Your task to perform on an android device: delete a single message in the gmail app Image 0: 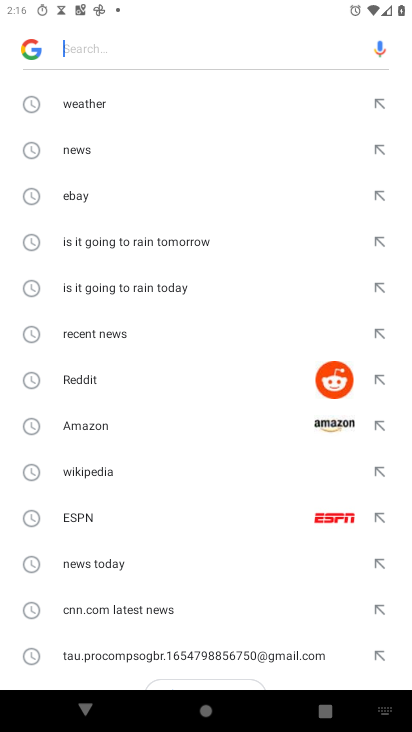
Step 0: press home button
Your task to perform on an android device: delete a single message in the gmail app Image 1: 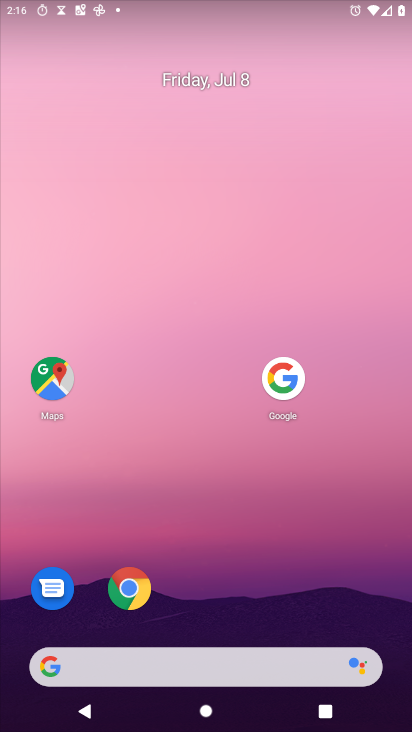
Step 1: drag from (154, 676) to (260, 66)
Your task to perform on an android device: delete a single message in the gmail app Image 2: 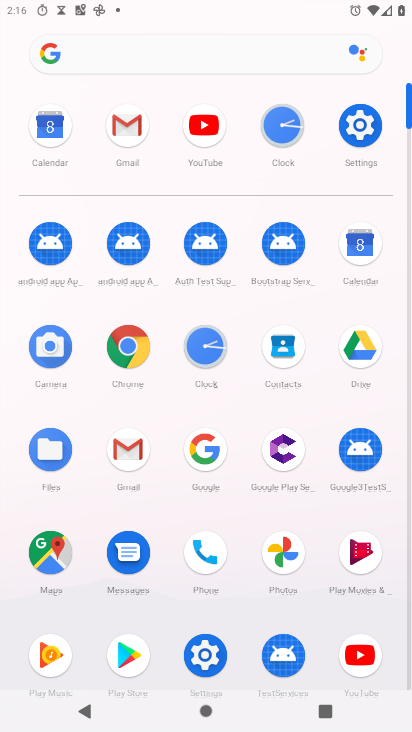
Step 2: click (131, 135)
Your task to perform on an android device: delete a single message in the gmail app Image 3: 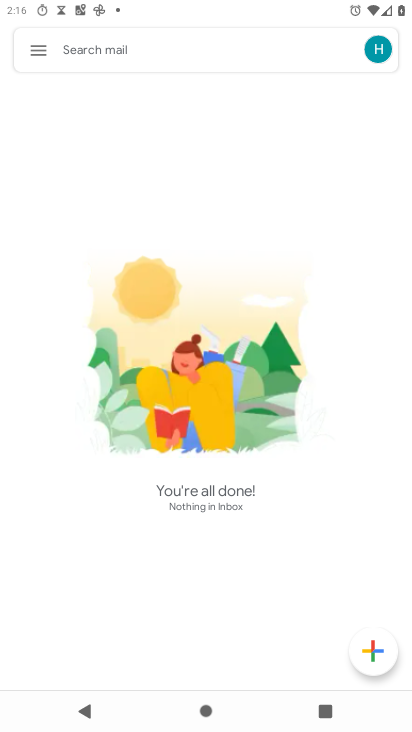
Step 3: task complete